Your task to perform on an android device: toggle pop-ups in chrome Image 0: 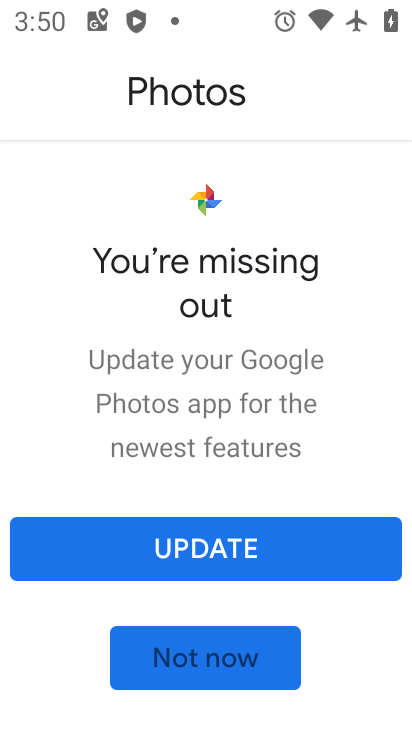
Step 0: press home button
Your task to perform on an android device: toggle pop-ups in chrome Image 1: 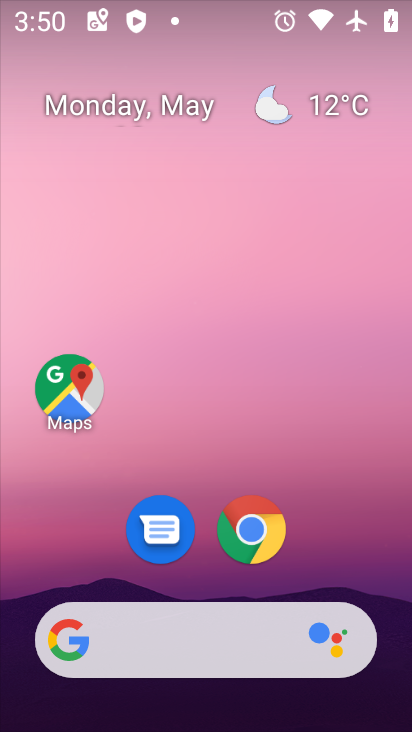
Step 1: click (249, 532)
Your task to perform on an android device: toggle pop-ups in chrome Image 2: 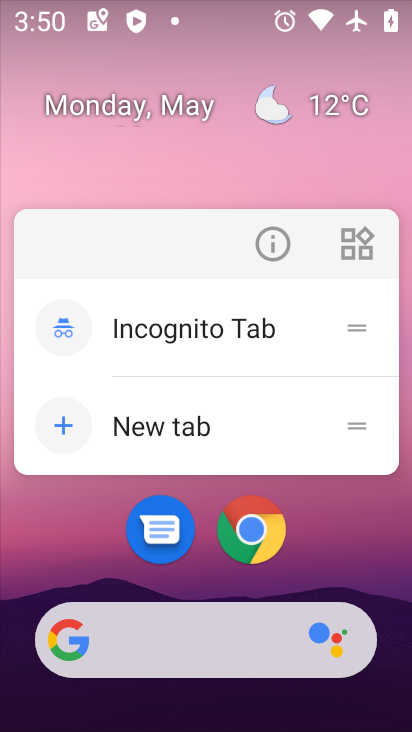
Step 2: click (247, 526)
Your task to perform on an android device: toggle pop-ups in chrome Image 3: 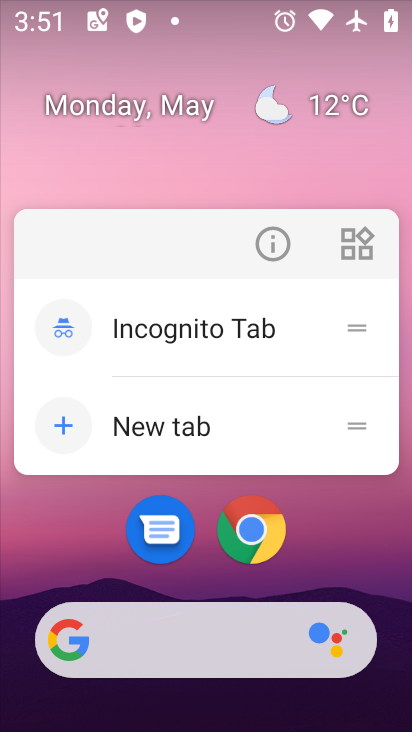
Step 3: click (245, 524)
Your task to perform on an android device: toggle pop-ups in chrome Image 4: 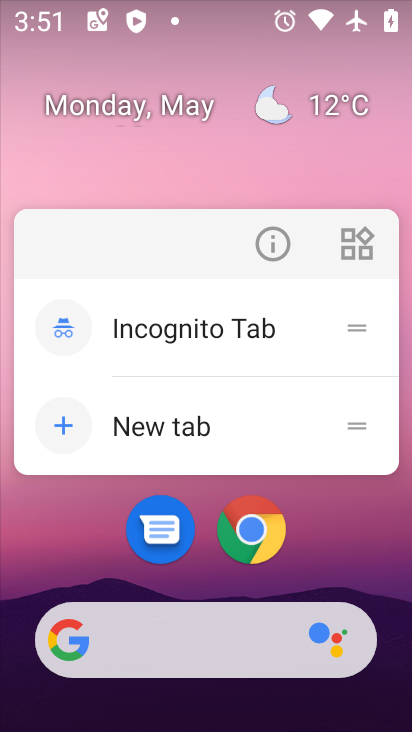
Step 4: click (238, 515)
Your task to perform on an android device: toggle pop-ups in chrome Image 5: 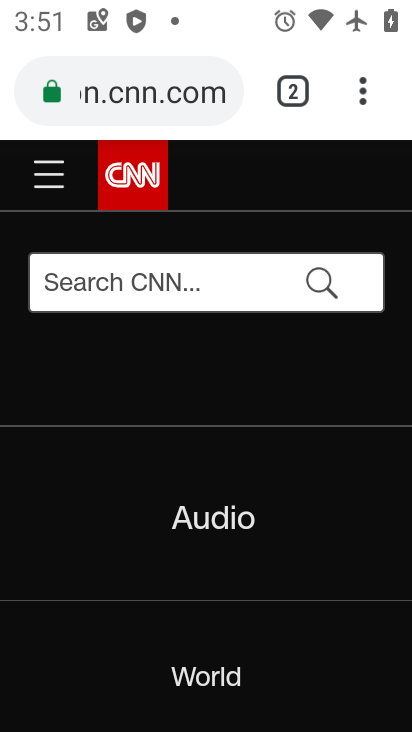
Step 5: click (372, 86)
Your task to perform on an android device: toggle pop-ups in chrome Image 6: 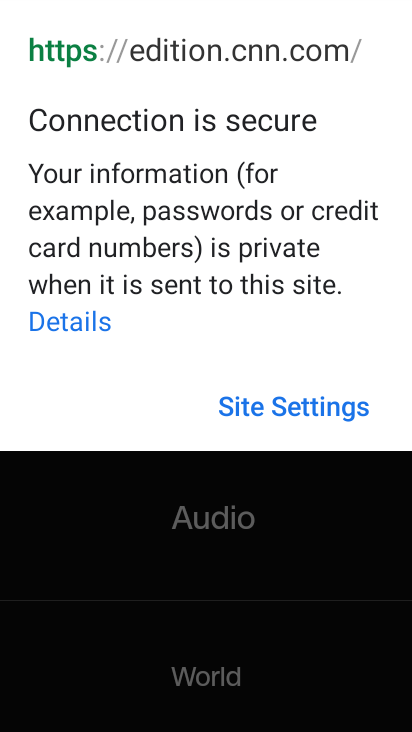
Step 6: click (263, 535)
Your task to perform on an android device: toggle pop-ups in chrome Image 7: 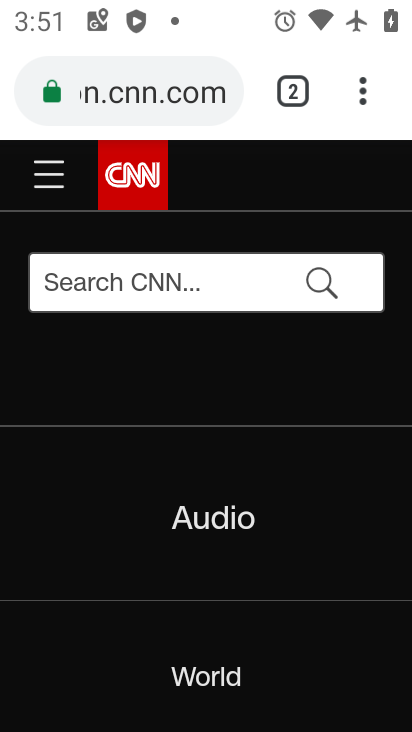
Step 7: click (368, 88)
Your task to perform on an android device: toggle pop-ups in chrome Image 8: 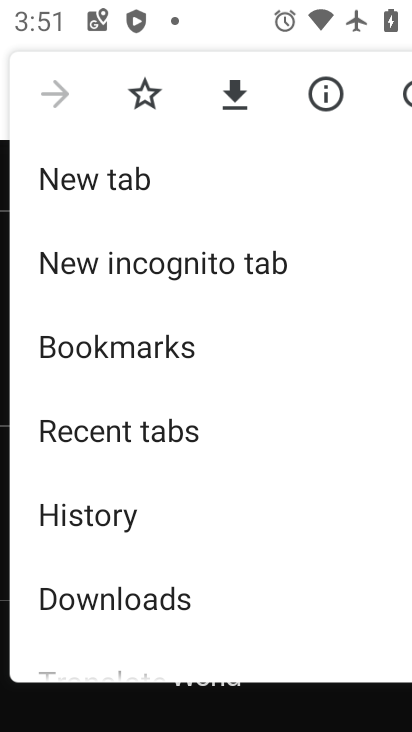
Step 8: drag from (137, 542) to (93, 215)
Your task to perform on an android device: toggle pop-ups in chrome Image 9: 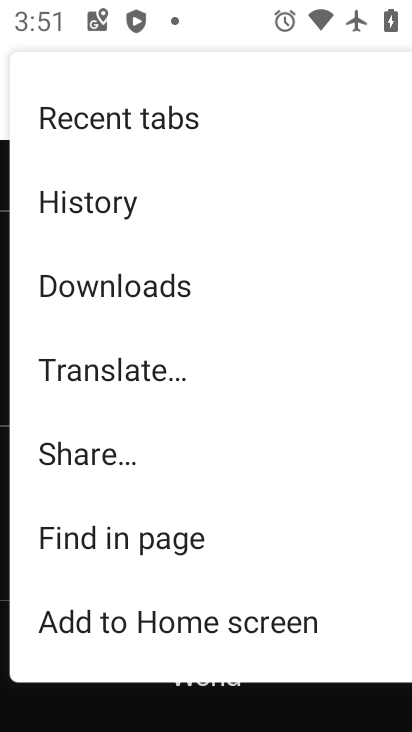
Step 9: drag from (159, 548) to (105, 268)
Your task to perform on an android device: toggle pop-ups in chrome Image 10: 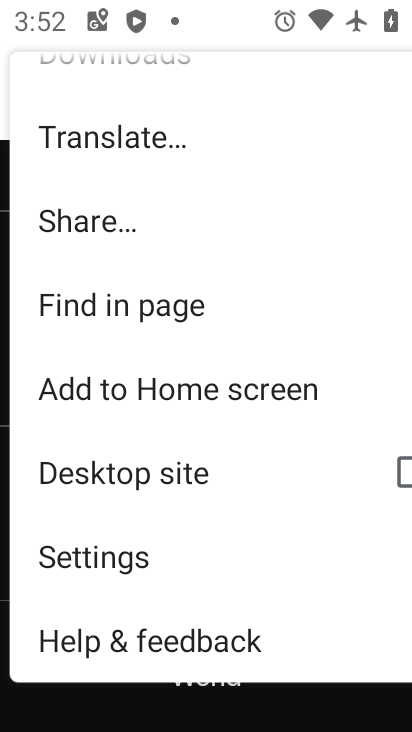
Step 10: click (140, 553)
Your task to perform on an android device: toggle pop-ups in chrome Image 11: 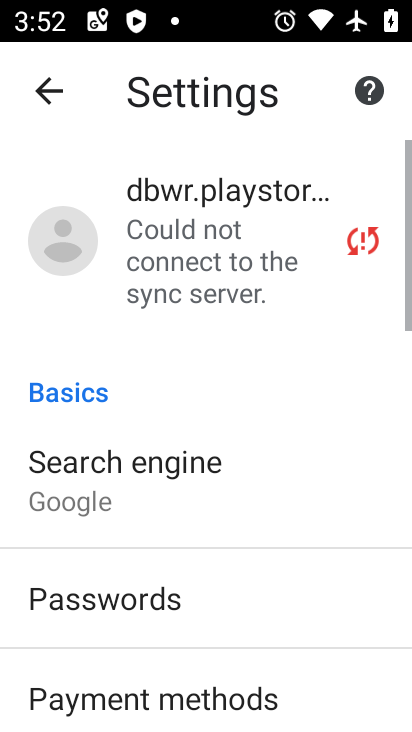
Step 11: drag from (153, 604) to (172, 248)
Your task to perform on an android device: toggle pop-ups in chrome Image 12: 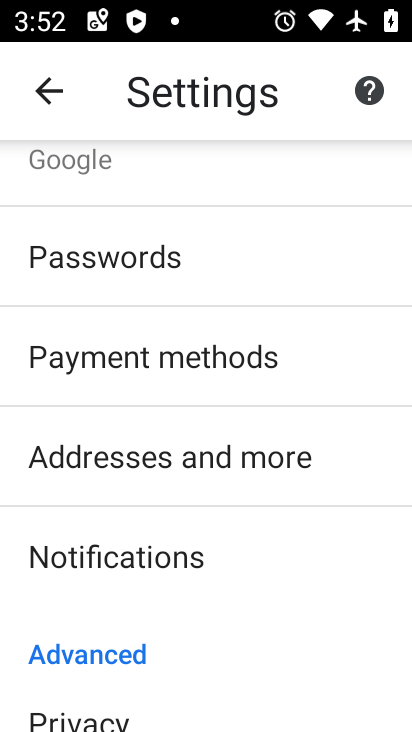
Step 12: drag from (218, 688) to (177, 356)
Your task to perform on an android device: toggle pop-ups in chrome Image 13: 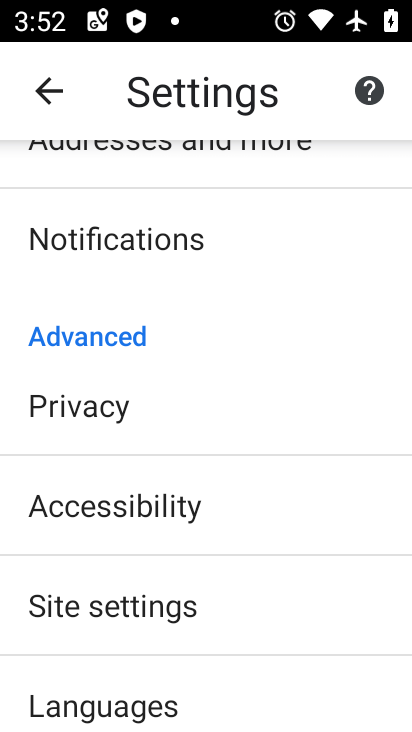
Step 13: click (223, 609)
Your task to perform on an android device: toggle pop-ups in chrome Image 14: 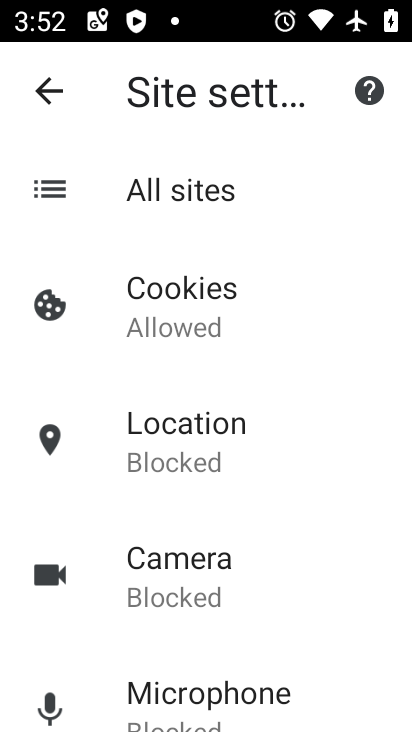
Step 14: drag from (206, 694) to (209, 347)
Your task to perform on an android device: toggle pop-ups in chrome Image 15: 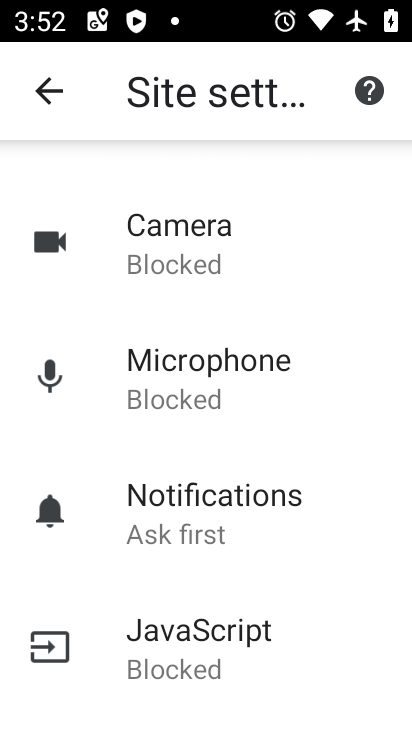
Step 15: drag from (236, 632) to (203, 362)
Your task to perform on an android device: toggle pop-ups in chrome Image 16: 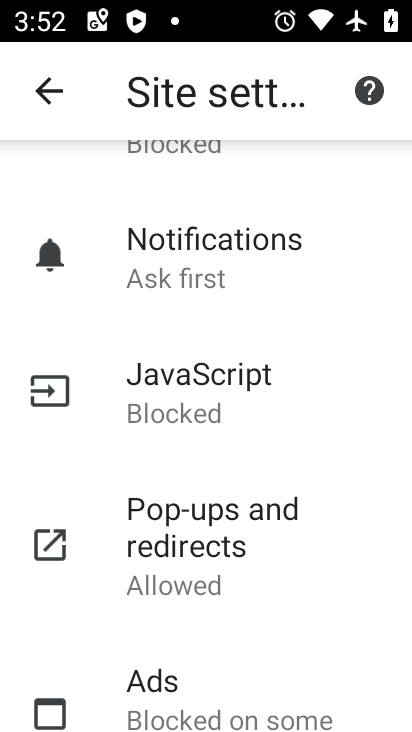
Step 16: click (158, 585)
Your task to perform on an android device: toggle pop-ups in chrome Image 17: 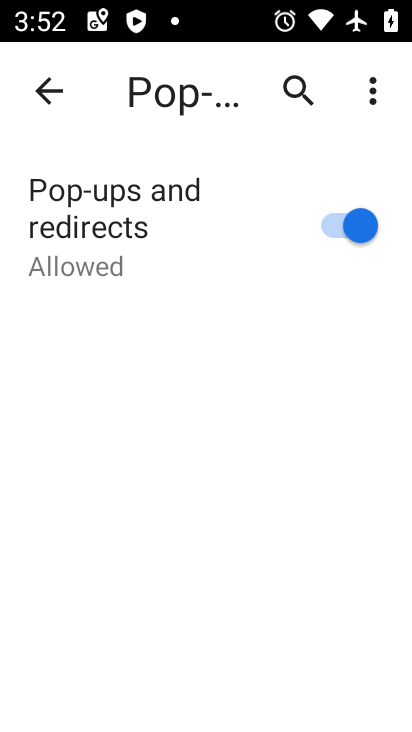
Step 17: click (344, 203)
Your task to perform on an android device: toggle pop-ups in chrome Image 18: 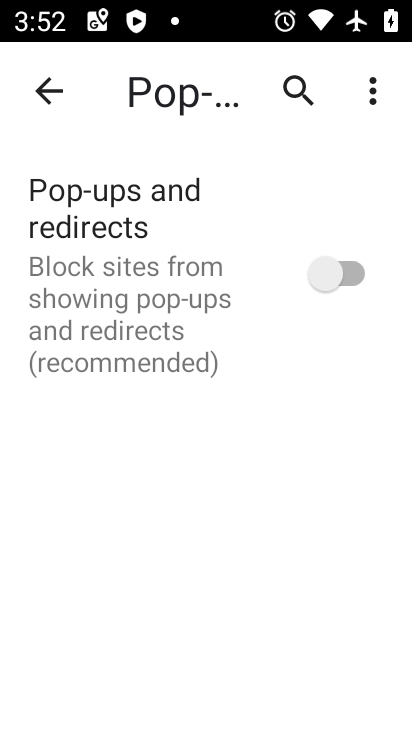
Step 18: task complete